Your task to perform on an android device: Toggle the flashlight Image 0: 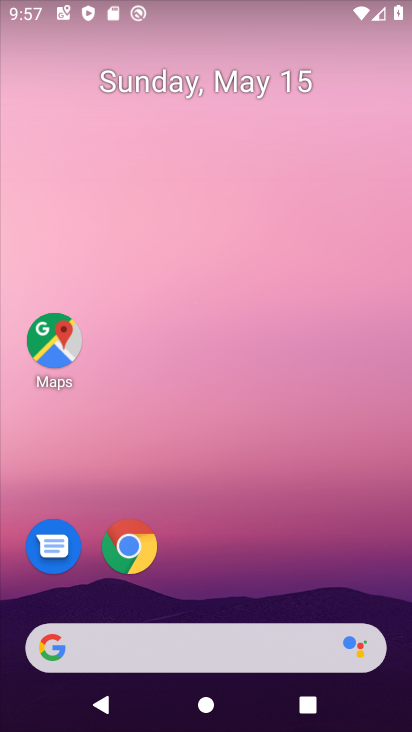
Step 0: drag from (191, 2) to (211, 511)
Your task to perform on an android device: Toggle the flashlight Image 1: 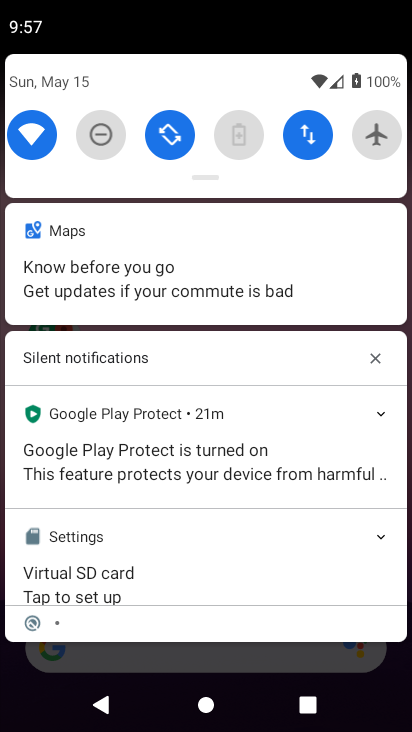
Step 1: task complete